Your task to perform on an android device: clear history in the chrome app Image 0: 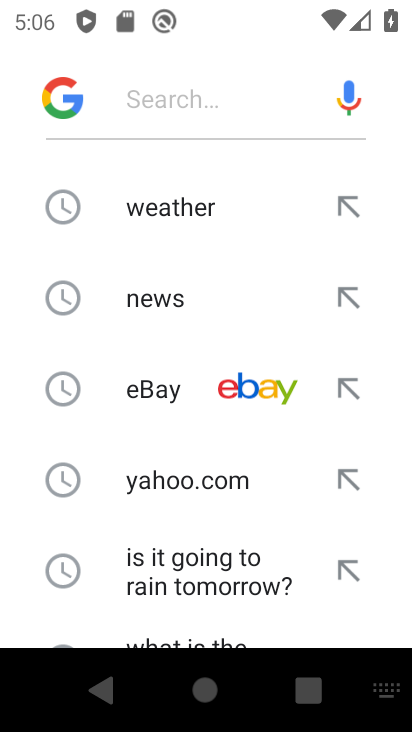
Step 0: press home button
Your task to perform on an android device: clear history in the chrome app Image 1: 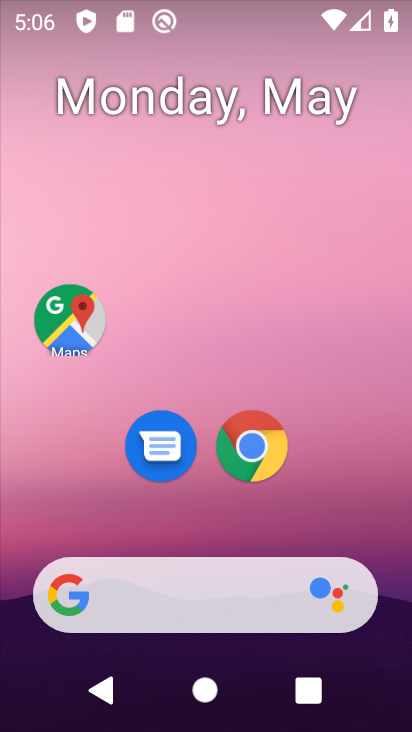
Step 1: click (260, 439)
Your task to perform on an android device: clear history in the chrome app Image 2: 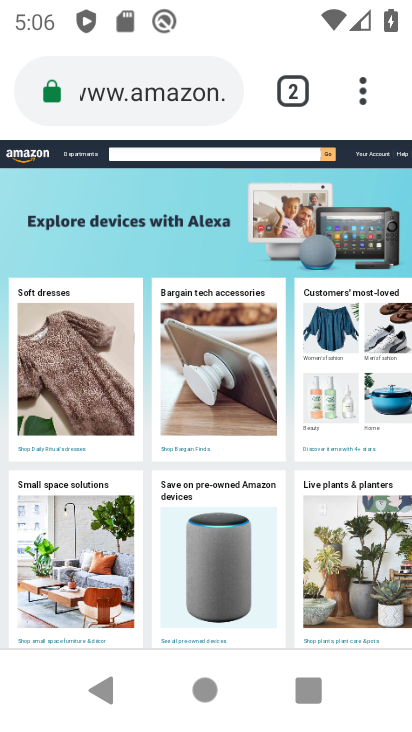
Step 2: click (365, 80)
Your task to perform on an android device: clear history in the chrome app Image 3: 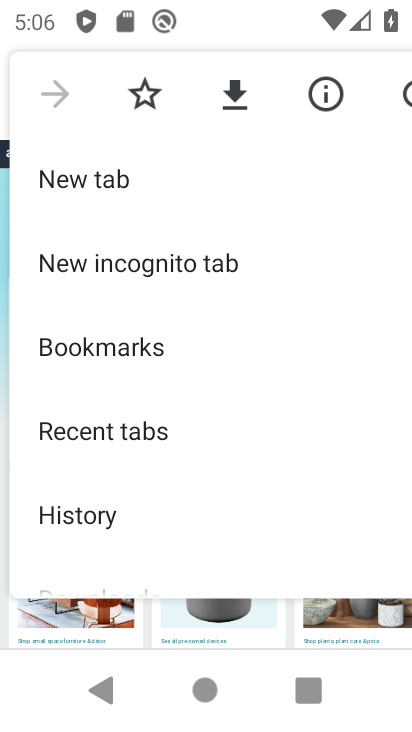
Step 3: click (87, 512)
Your task to perform on an android device: clear history in the chrome app Image 4: 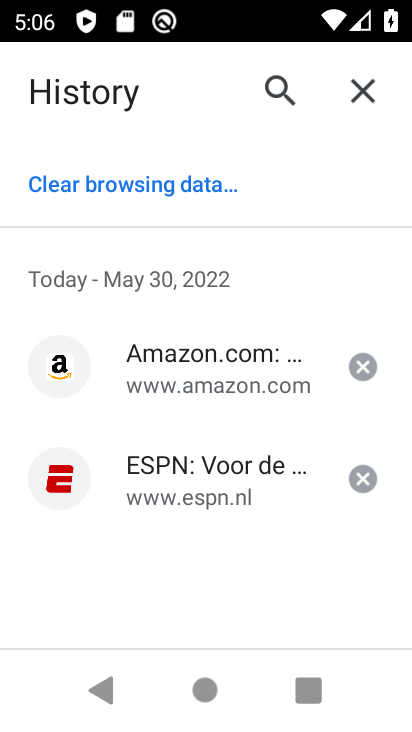
Step 4: click (153, 179)
Your task to perform on an android device: clear history in the chrome app Image 5: 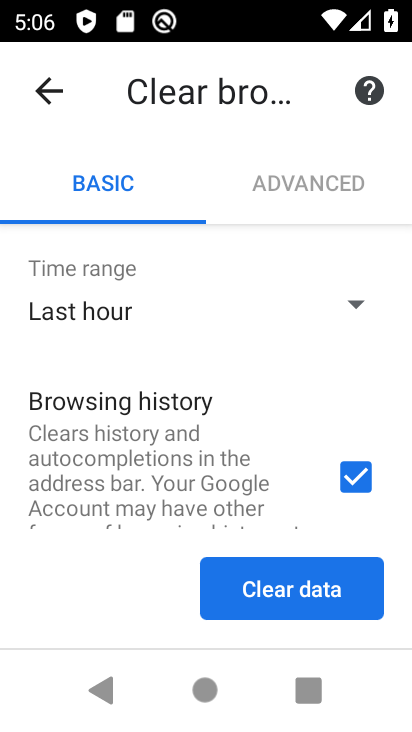
Step 5: click (295, 588)
Your task to perform on an android device: clear history in the chrome app Image 6: 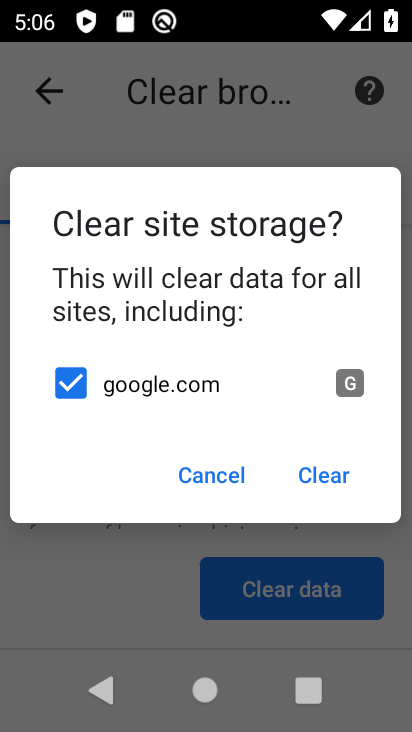
Step 6: click (323, 468)
Your task to perform on an android device: clear history in the chrome app Image 7: 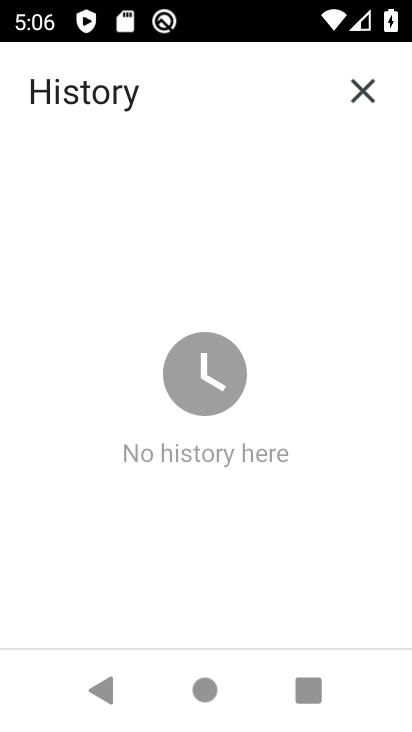
Step 7: task complete